Your task to perform on an android device: Show the shopping cart on amazon.com. Add macbook pro 15 inch to the cart on amazon.com, then select checkout. Image 0: 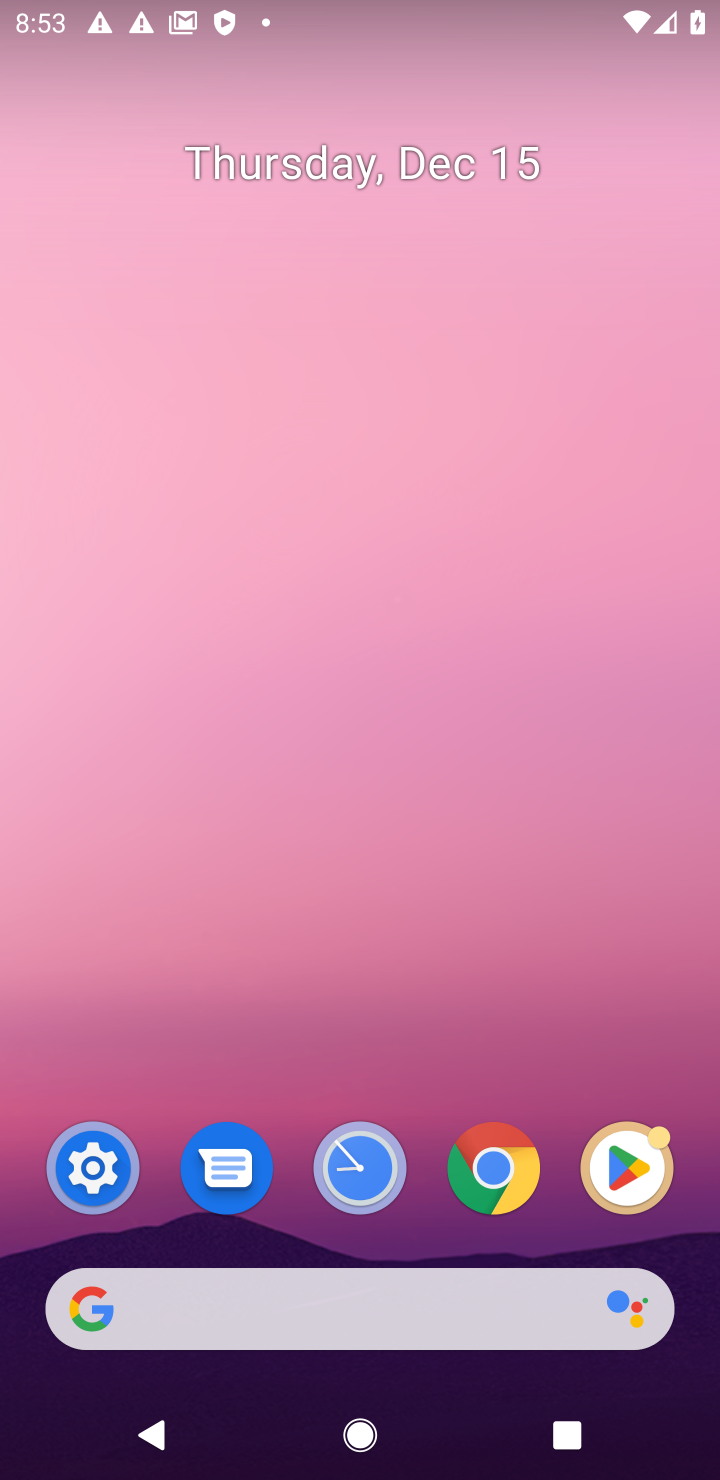
Step 0: click (488, 1177)
Your task to perform on an android device: Show the shopping cart on amazon.com. Add macbook pro 15 inch to the cart on amazon.com, then select checkout. Image 1: 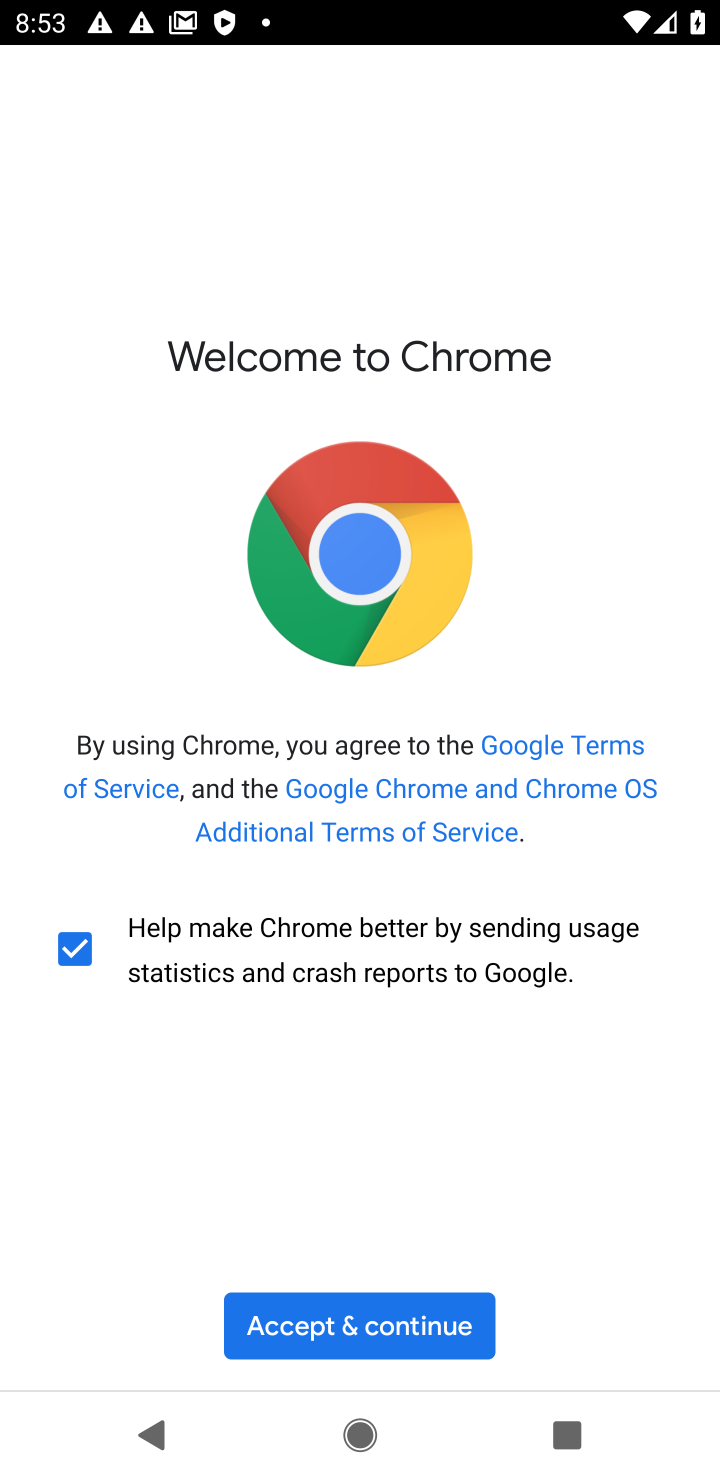
Step 1: click (338, 1313)
Your task to perform on an android device: Show the shopping cart on amazon.com. Add macbook pro 15 inch to the cart on amazon.com, then select checkout. Image 2: 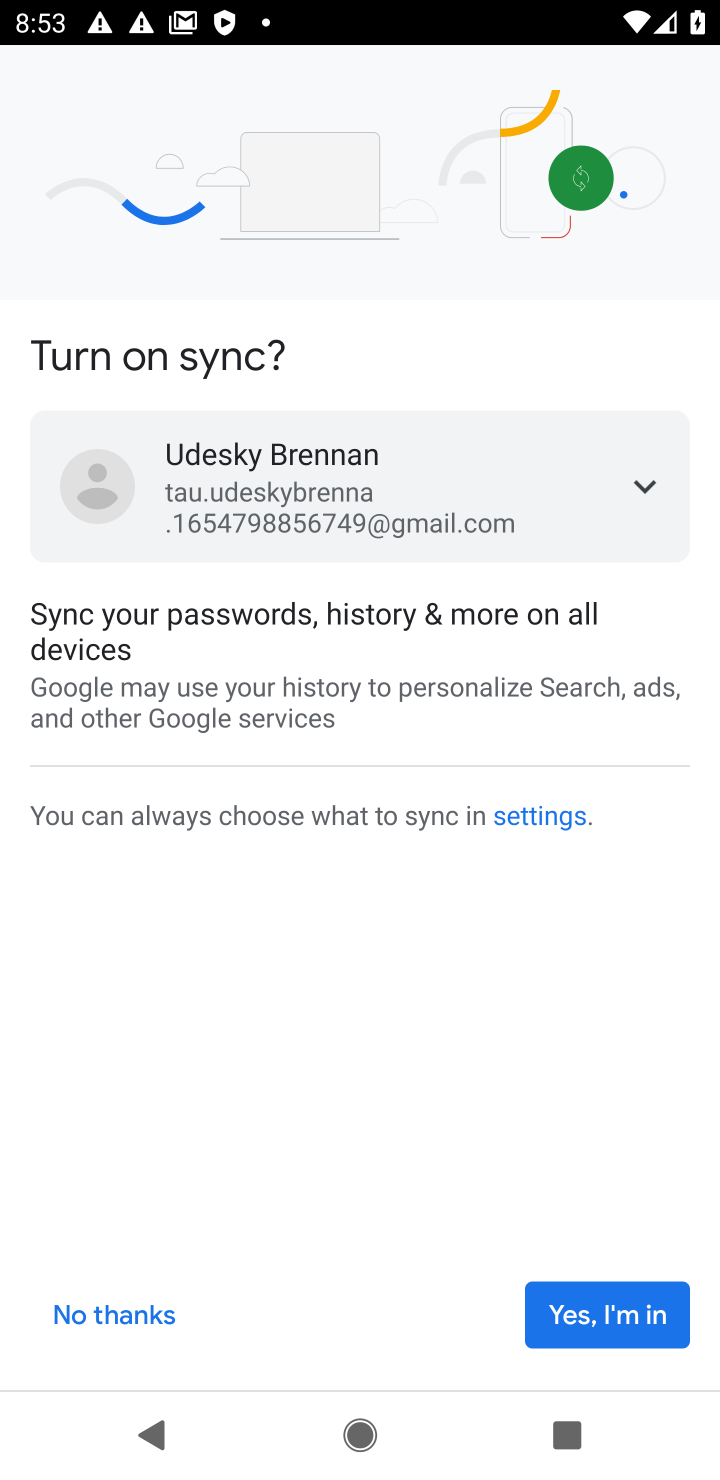
Step 2: click (598, 1320)
Your task to perform on an android device: Show the shopping cart on amazon.com. Add macbook pro 15 inch to the cart on amazon.com, then select checkout. Image 3: 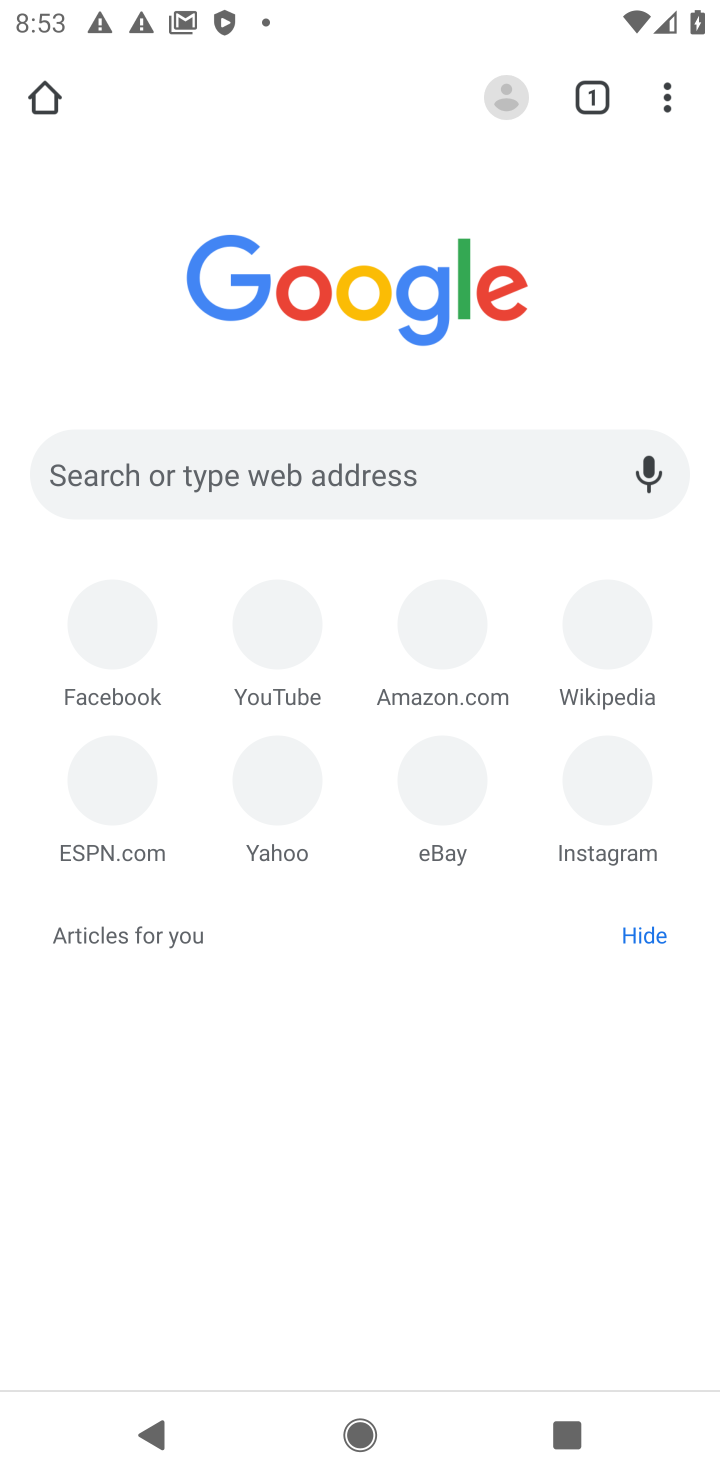
Step 3: click (321, 96)
Your task to perform on an android device: Show the shopping cart on amazon.com. Add macbook pro 15 inch to the cart on amazon.com, then select checkout. Image 4: 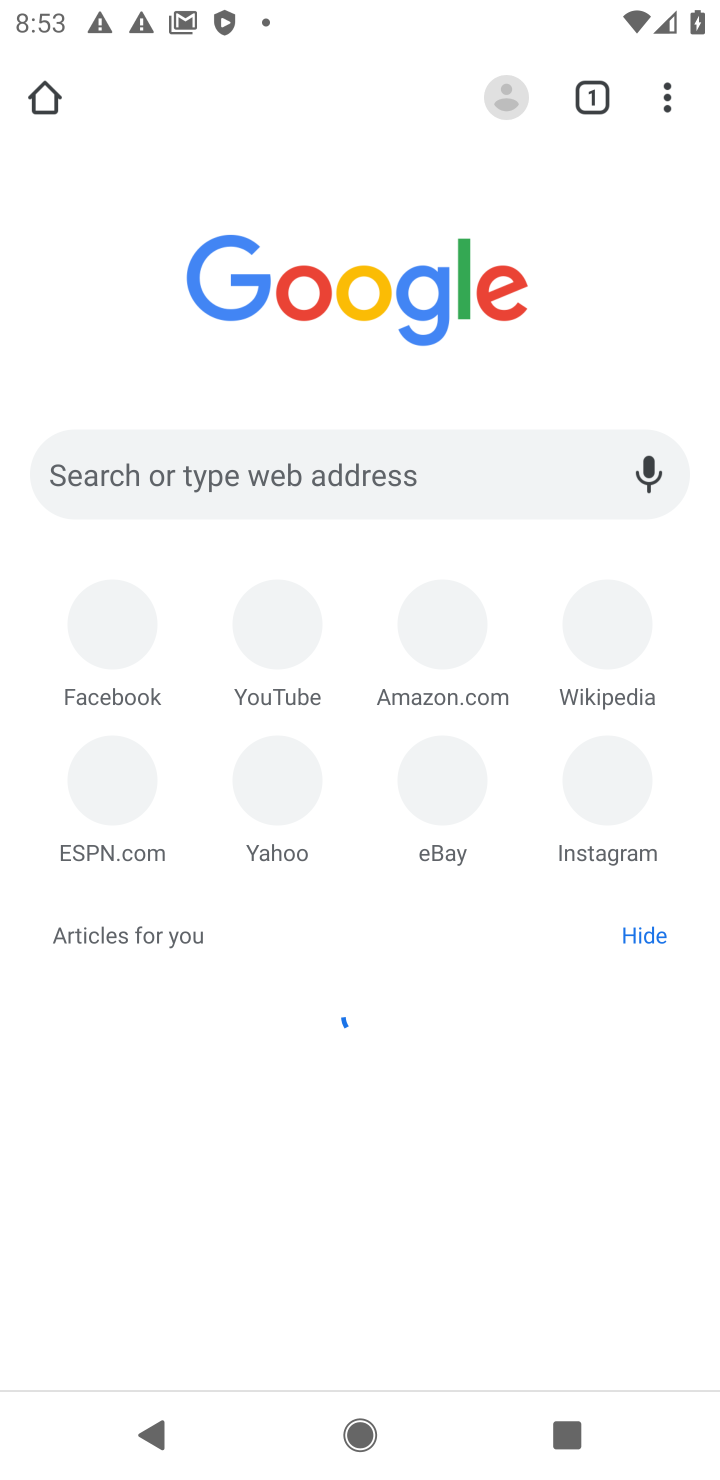
Step 4: click (441, 616)
Your task to perform on an android device: Show the shopping cart on amazon.com. Add macbook pro 15 inch to the cart on amazon.com, then select checkout. Image 5: 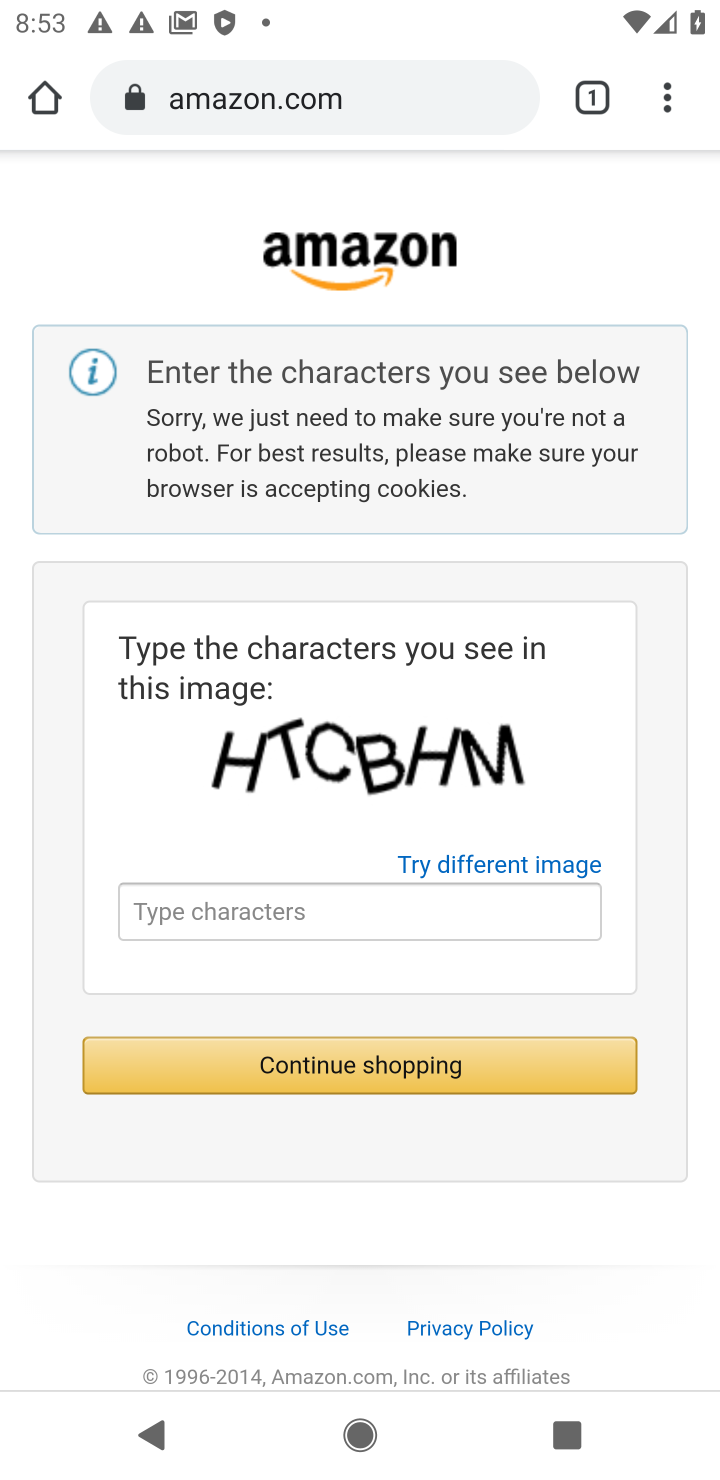
Step 5: click (399, 907)
Your task to perform on an android device: Show the shopping cart on amazon.com. Add macbook pro 15 inch to the cart on amazon.com, then select checkout. Image 6: 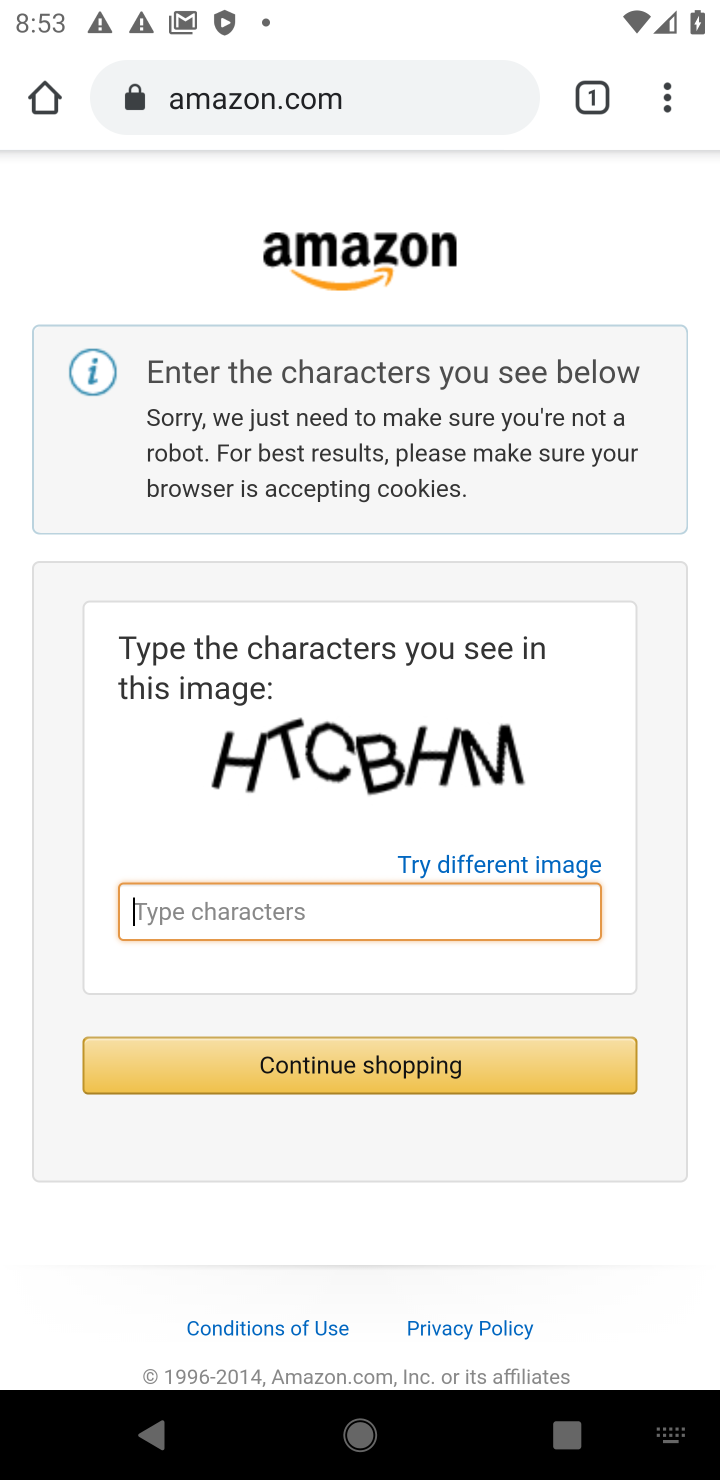
Step 6: type "HTCBHM"
Your task to perform on an android device: Show the shopping cart on amazon.com. Add macbook pro 15 inch to the cart on amazon.com, then select checkout. Image 7: 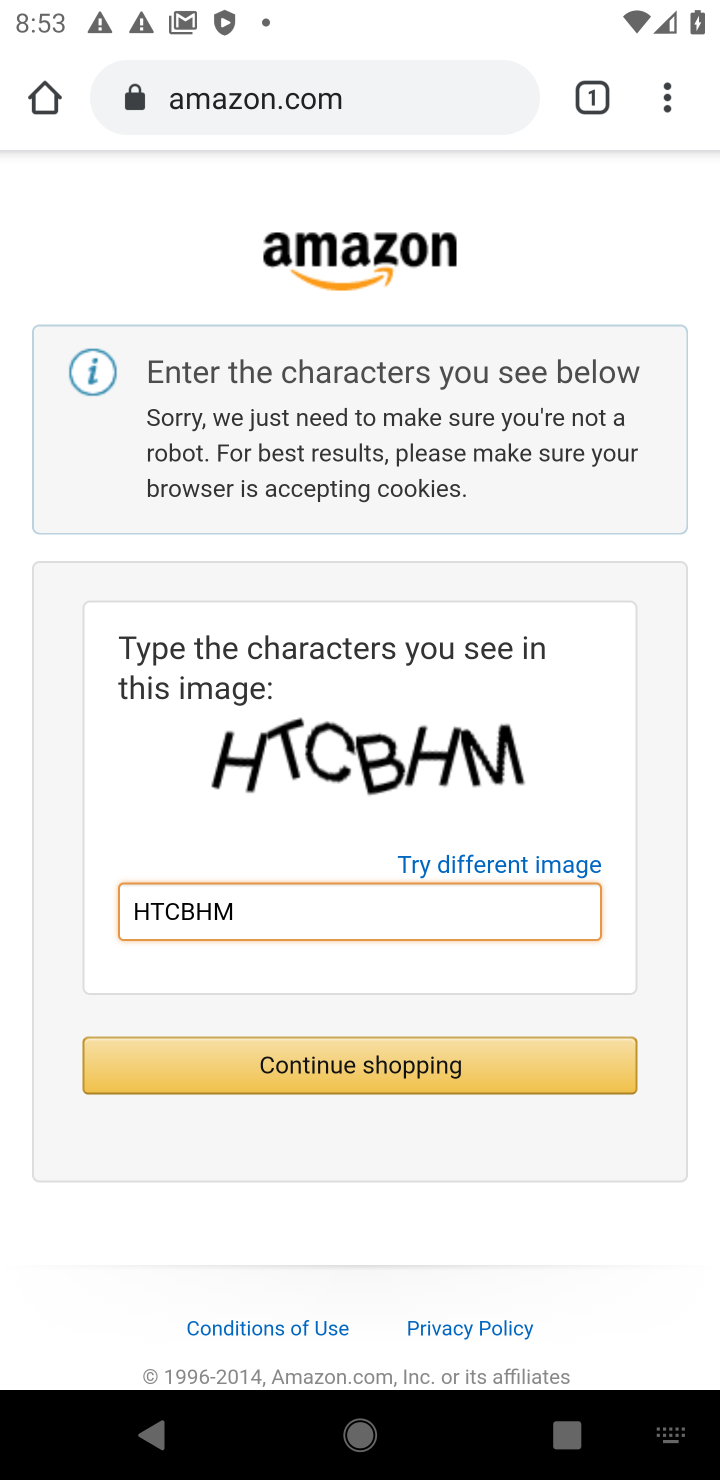
Step 7: click (364, 1061)
Your task to perform on an android device: Show the shopping cart on amazon.com. Add macbook pro 15 inch to the cart on amazon.com, then select checkout. Image 8: 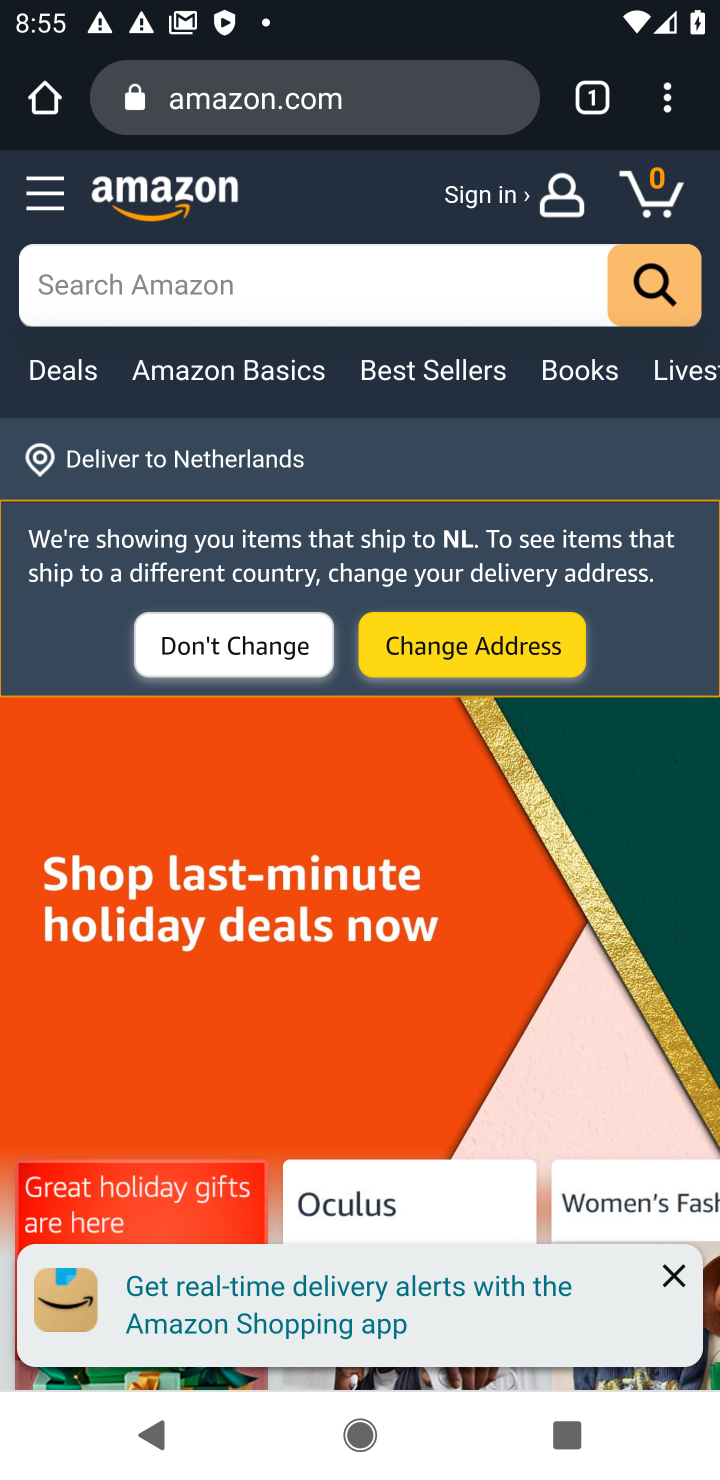
Step 8: click (385, 279)
Your task to perform on an android device: Show the shopping cart on amazon.com. Add macbook pro 15 inch to the cart on amazon.com, then select checkout. Image 9: 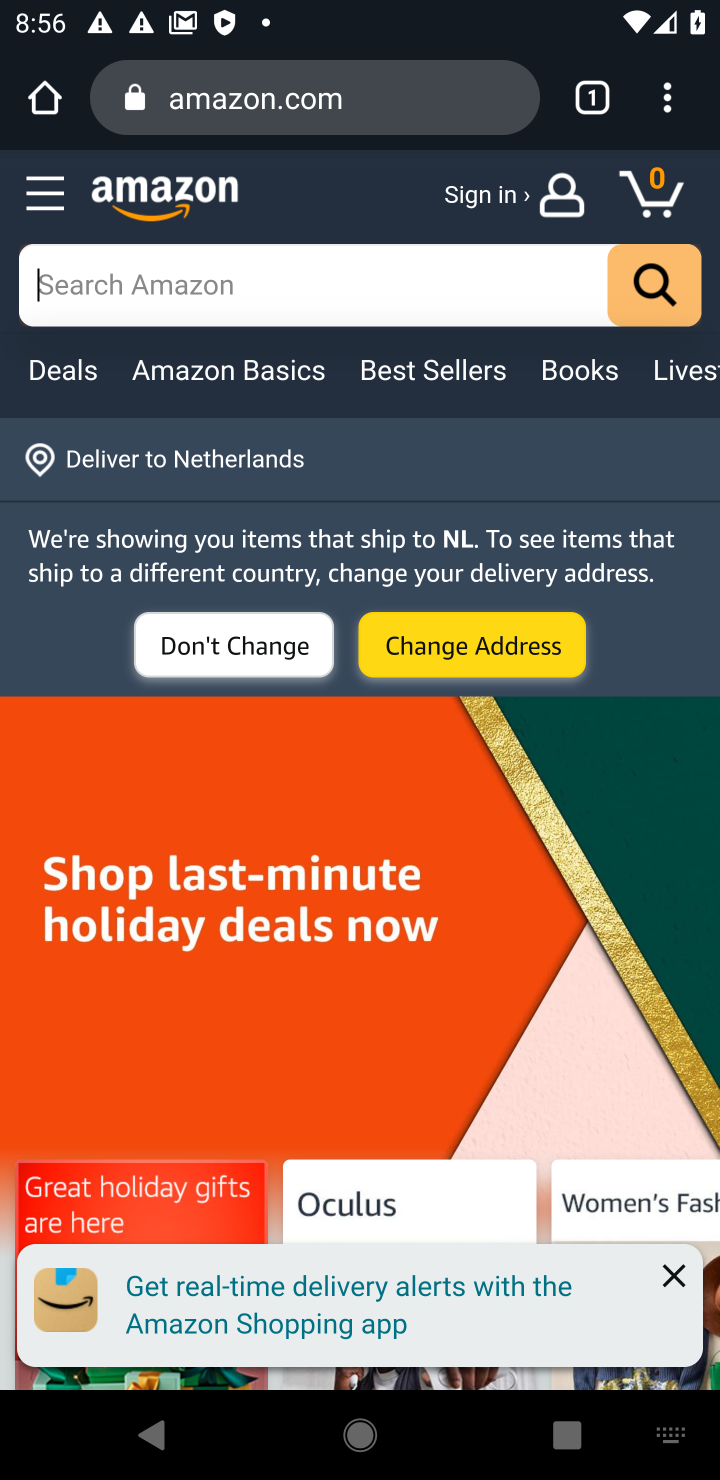
Step 9: type "macbook pro 15 inch"
Your task to perform on an android device: Show the shopping cart on amazon.com. Add macbook pro 15 inch to the cart on amazon.com, then select checkout. Image 10: 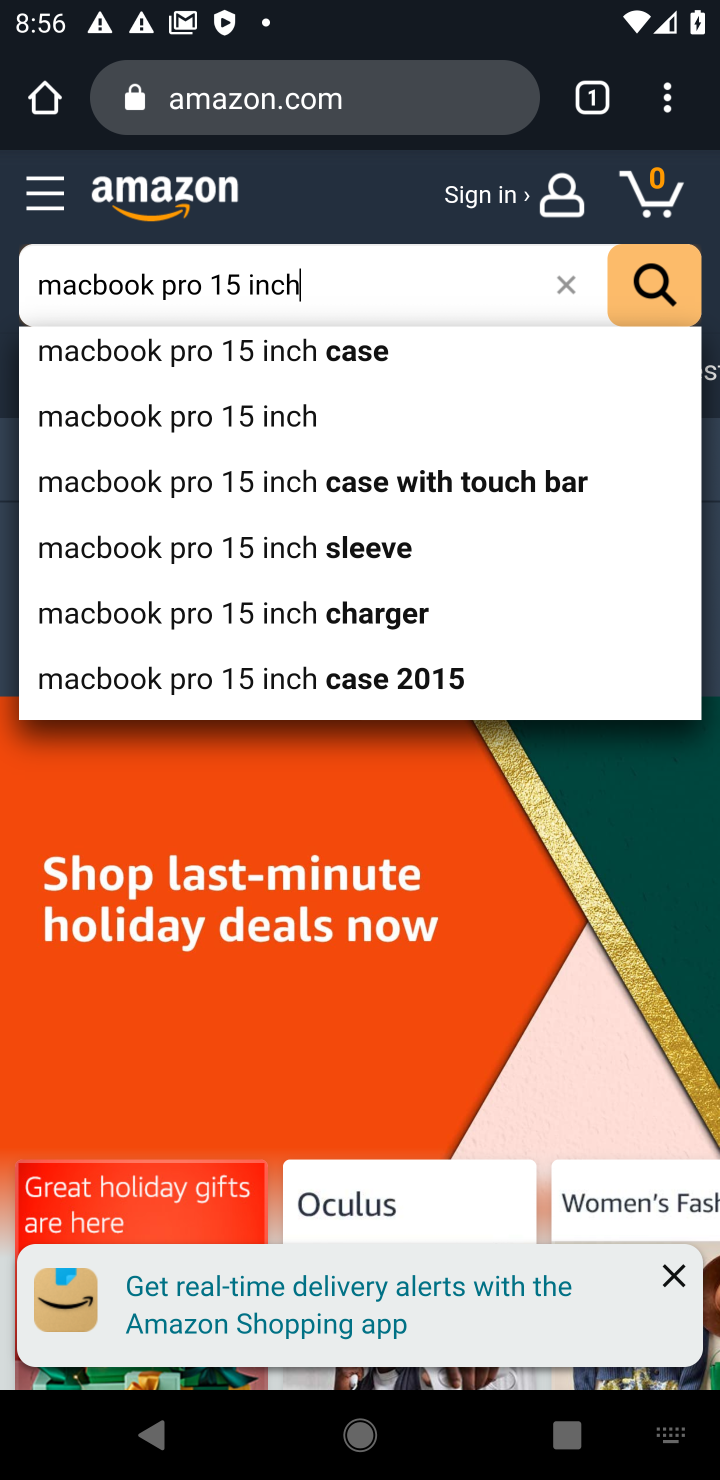
Step 10: click (167, 357)
Your task to perform on an android device: Show the shopping cart on amazon.com. Add macbook pro 15 inch to the cart on amazon.com, then select checkout. Image 11: 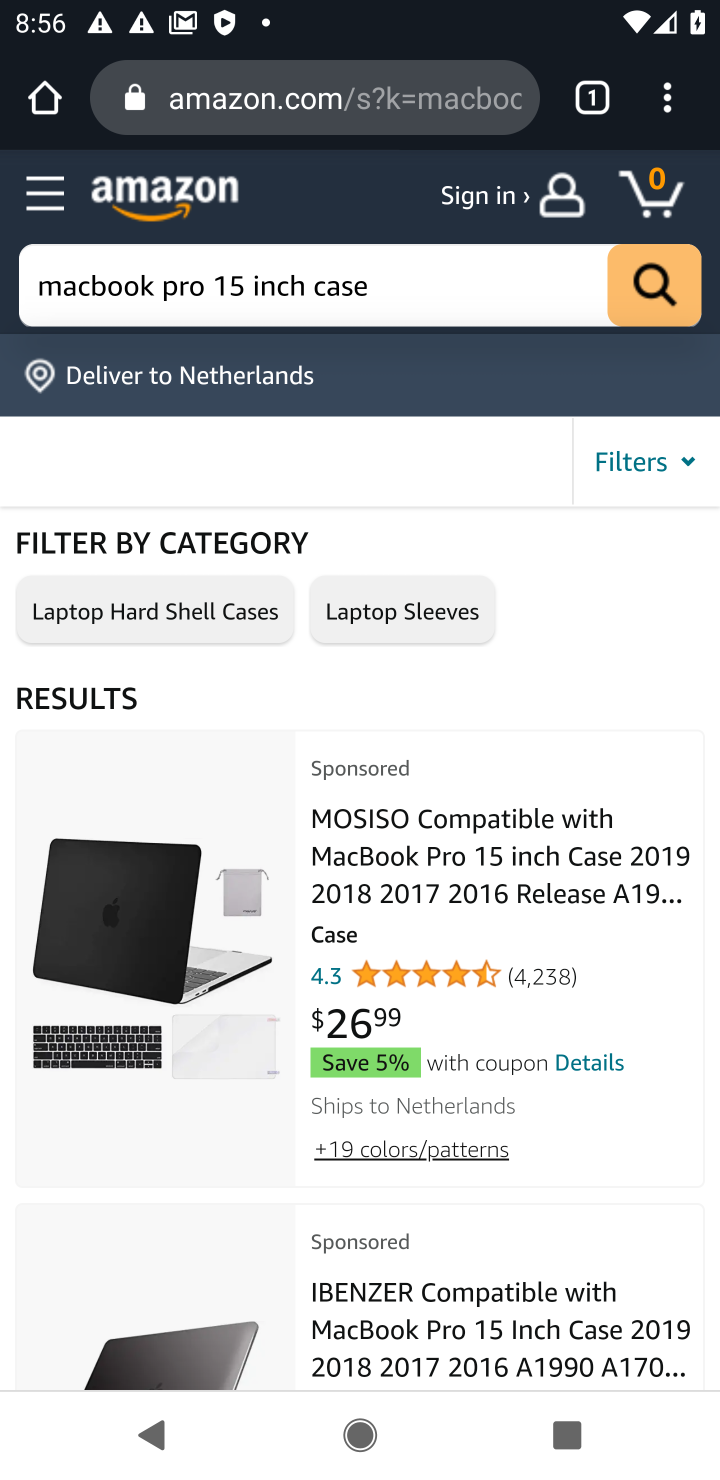
Step 11: click (549, 861)
Your task to perform on an android device: Show the shopping cart on amazon.com. Add macbook pro 15 inch to the cart on amazon.com, then select checkout. Image 12: 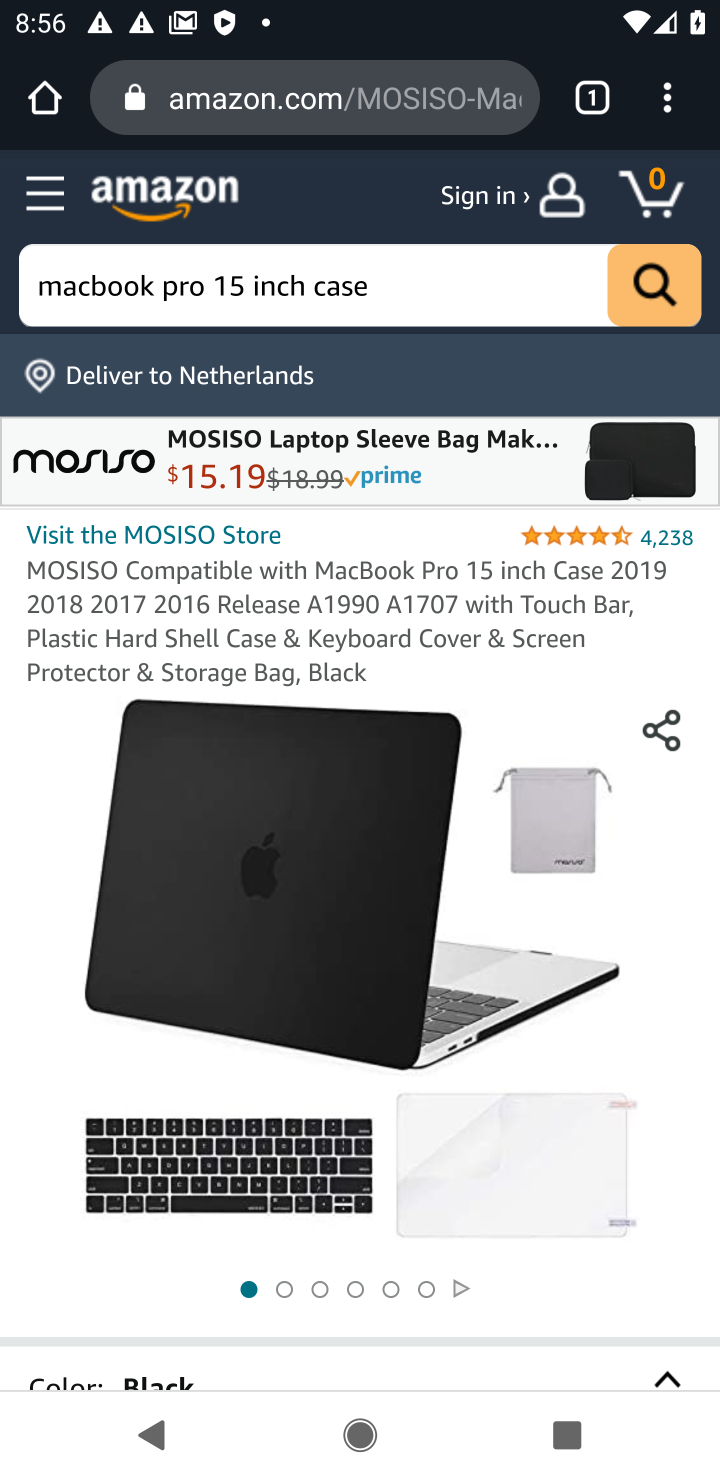
Step 12: drag from (337, 1241) to (369, 416)
Your task to perform on an android device: Show the shopping cart on amazon.com. Add macbook pro 15 inch to the cart on amazon.com, then select checkout. Image 13: 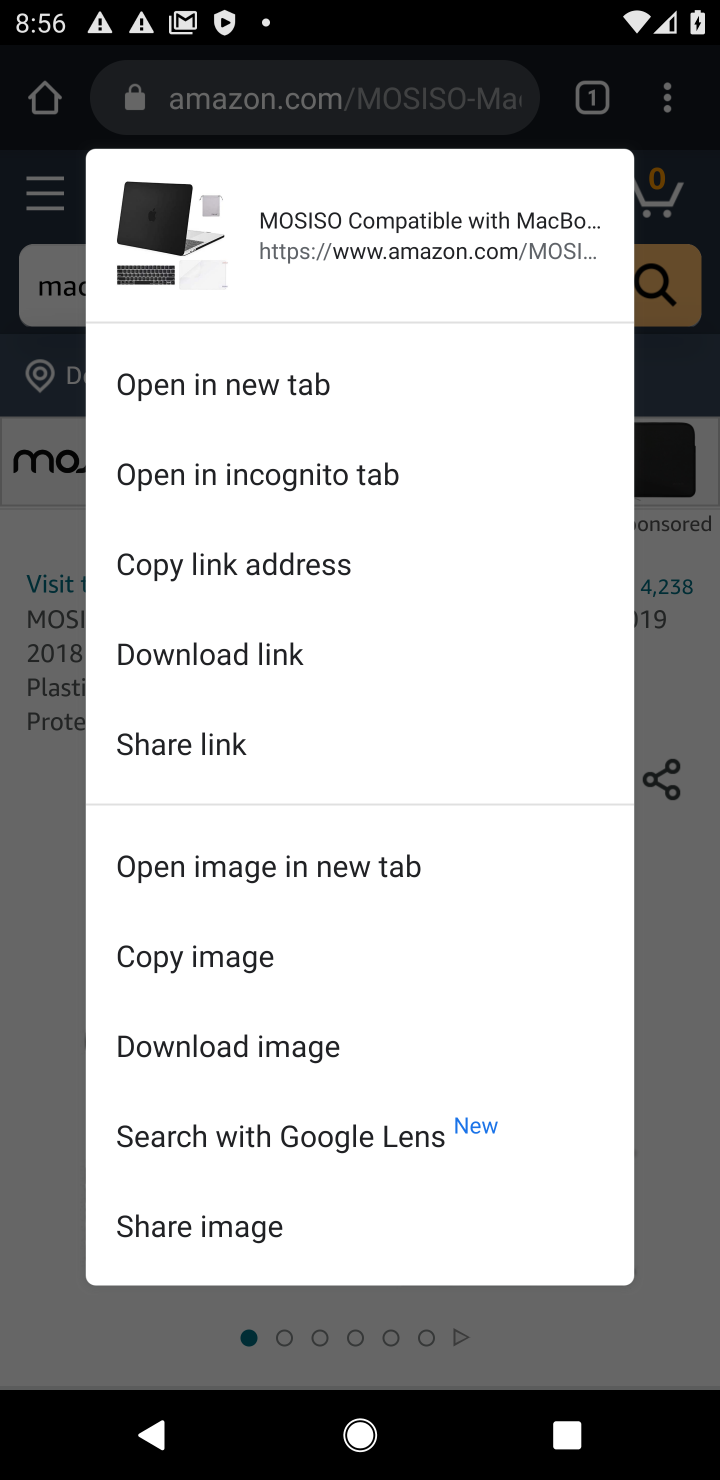
Step 13: click (74, 1339)
Your task to perform on an android device: Show the shopping cart on amazon.com. Add macbook pro 15 inch to the cart on amazon.com, then select checkout. Image 14: 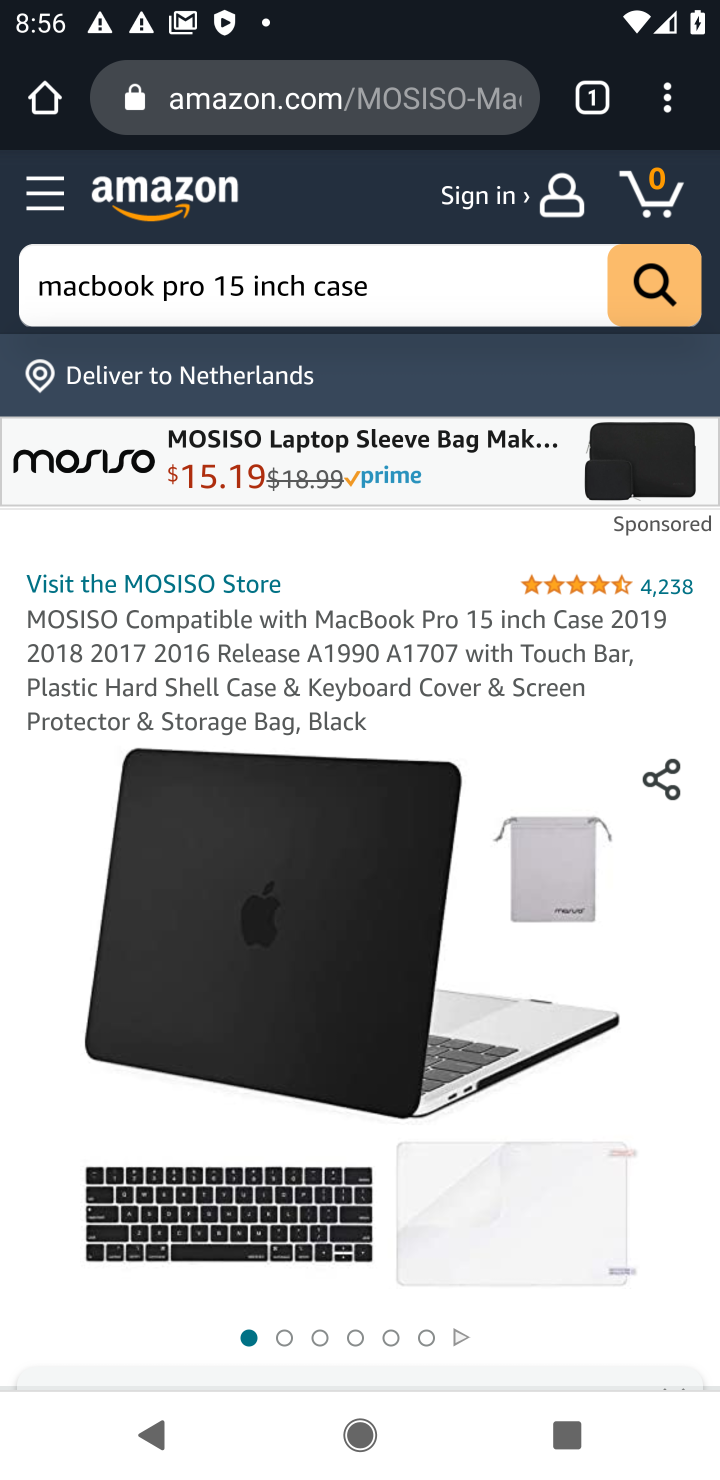
Step 14: drag from (277, 1282) to (203, 179)
Your task to perform on an android device: Show the shopping cart on amazon.com. Add macbook pro 15 inch to the cart on amazon.com, then select checkout. Image 15: 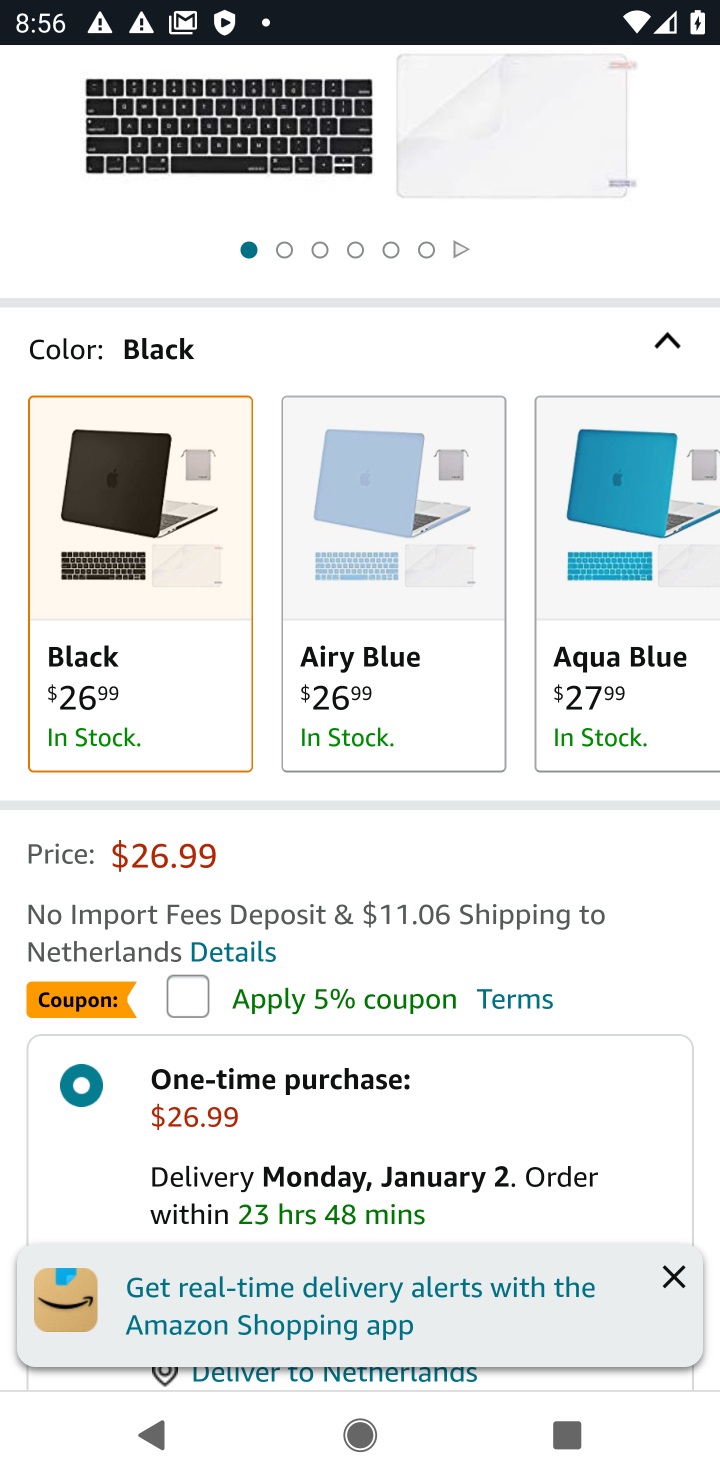
Step 15: drag from (579, 1149) to (416, 201)
Your task to perform on an android device: Show the shopping cart on amazon.com. Add macbook pro 15 inch to the cart on amazon.com, then select checkout. Image 16: 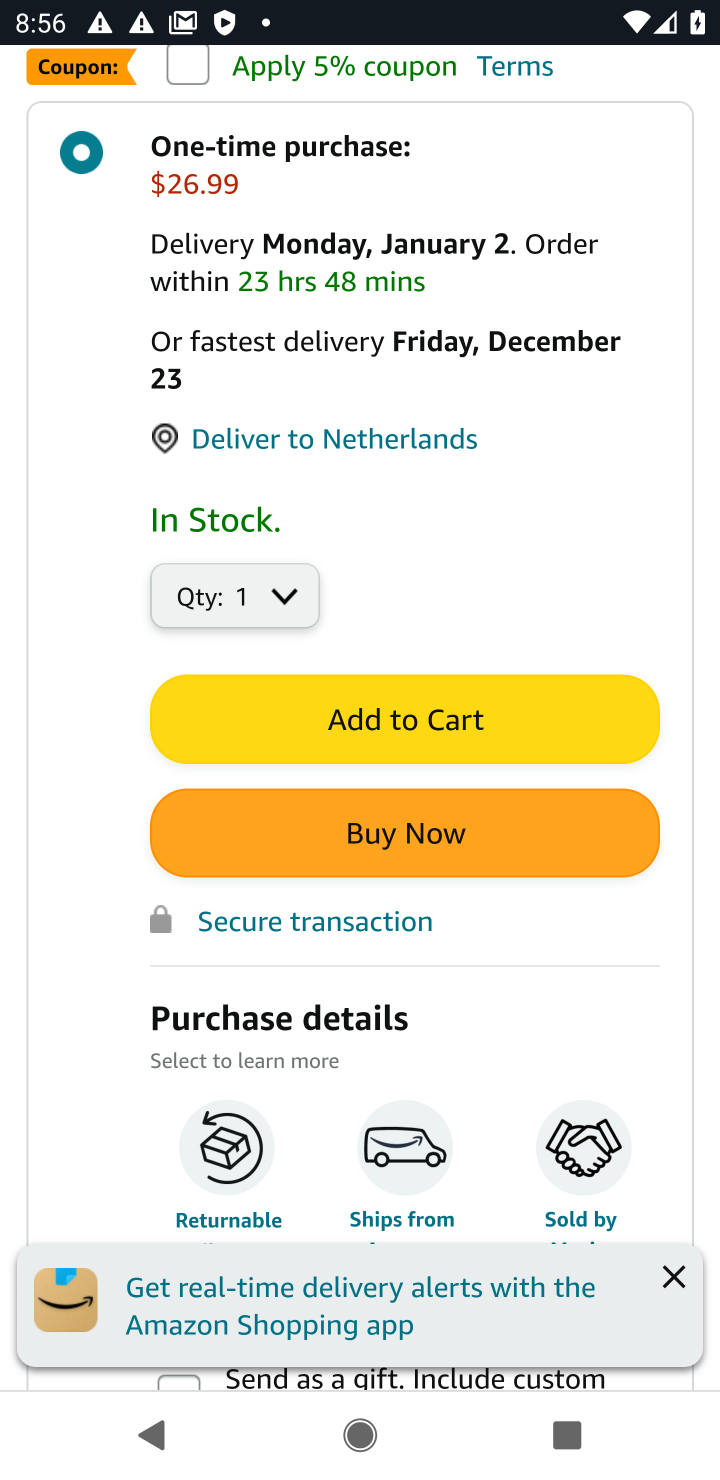
Step 16: click (380, 703)
Your task to perform on an android device: Show the shopping cart on amazon.com. Add macbook pro 15 inch to the cart on amazon.com, then select checkout. Image 17: 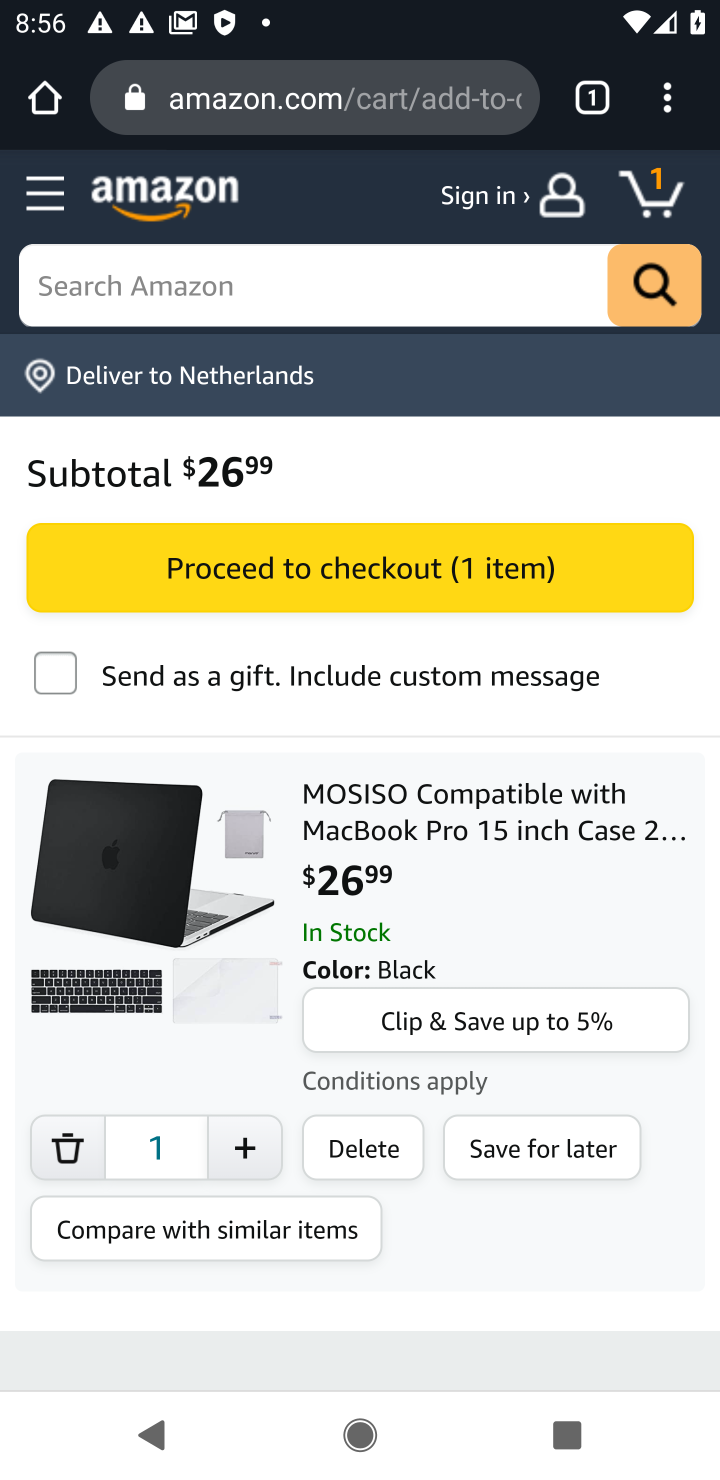
Step 17: click (433, 572)
Your task to perform on an android device: Show the shopping cart on amazon.com. Add macbook pro 15 inch to the cart on amazon.com, then select checkout. Image 18: 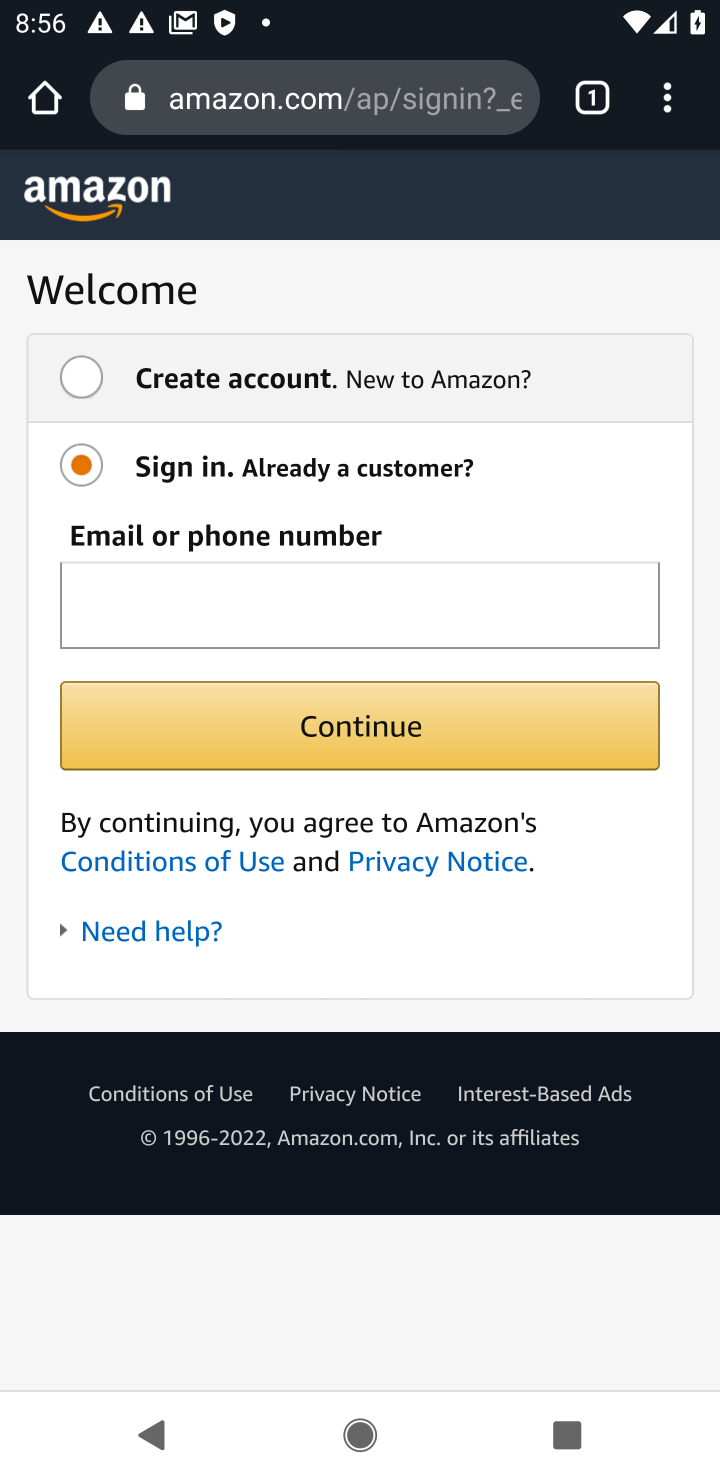
Step 18: task complete